Your task to perform on an android device: move a message to another label in the gmail app Image 0: 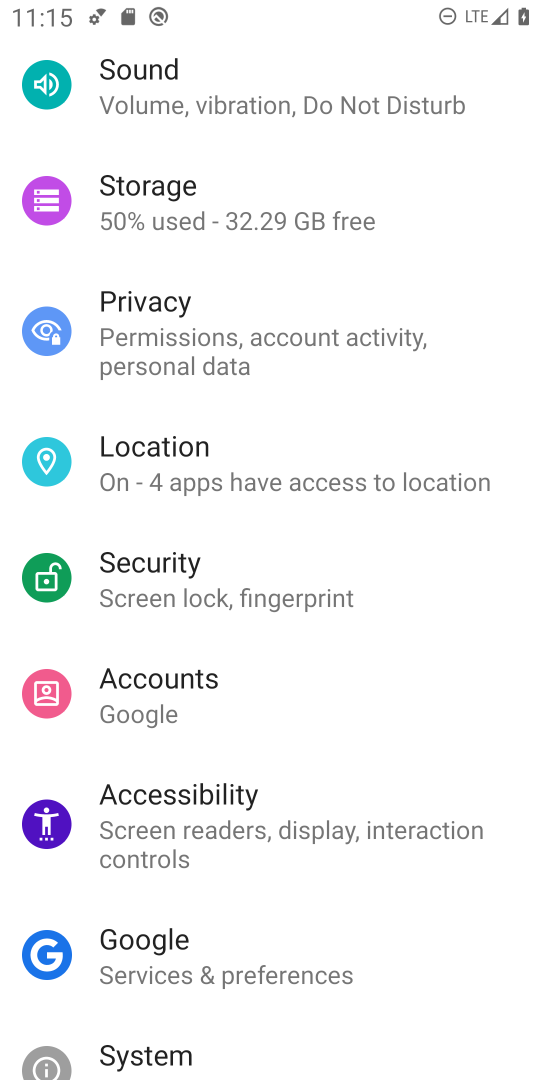
Step 0: press home button
Your task to perform on an android device: move a message to another label in the gmail app Image 1: 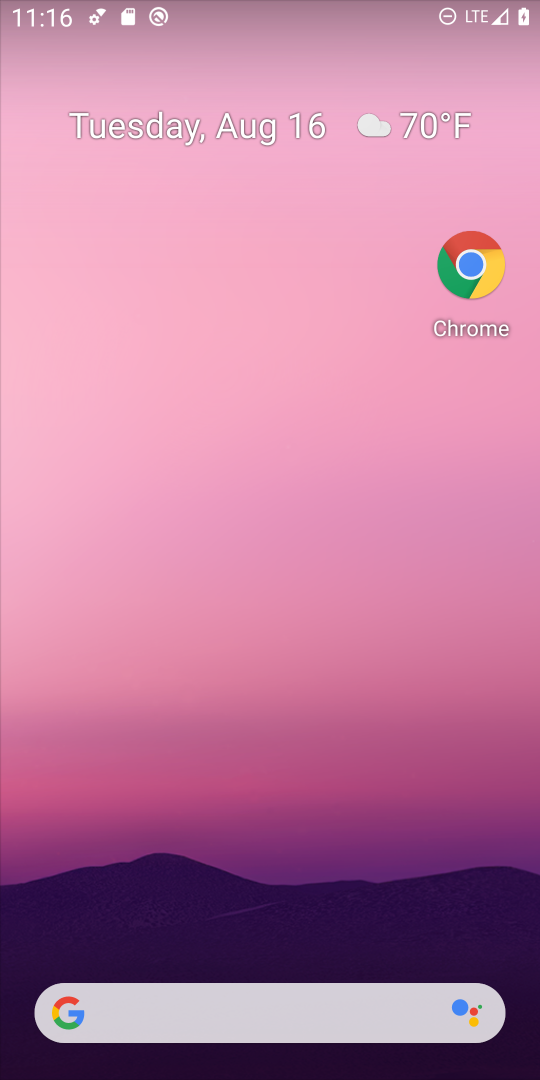
Step 1: drag from (354, 926) to (525, 284)
Your task to perform on an android device: move a message to another label in the gmail app Image 2: 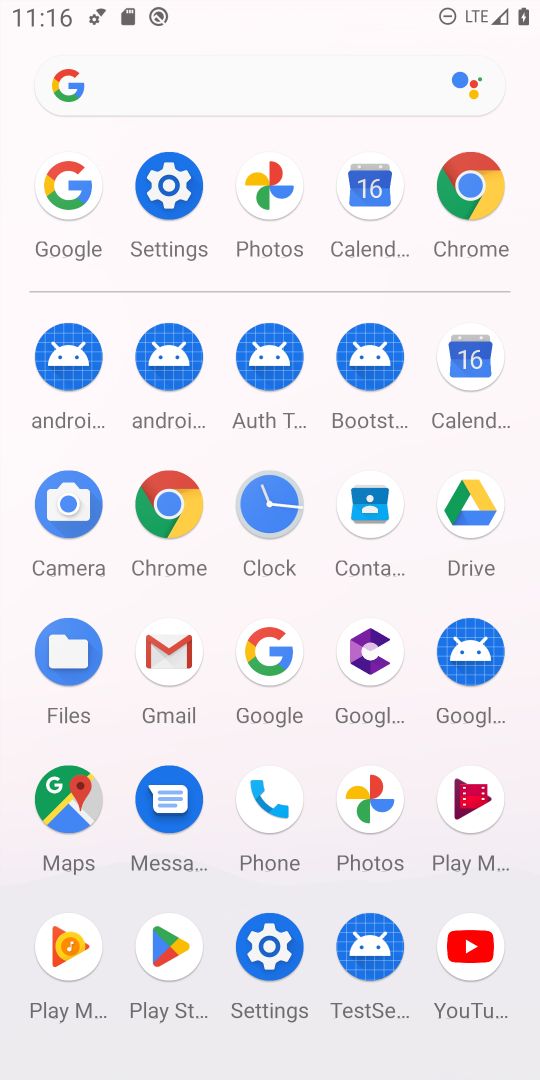
Step 2: click (171, 670)
Your task to perform on an android device: move a message to another label in the gmail app Image 3: 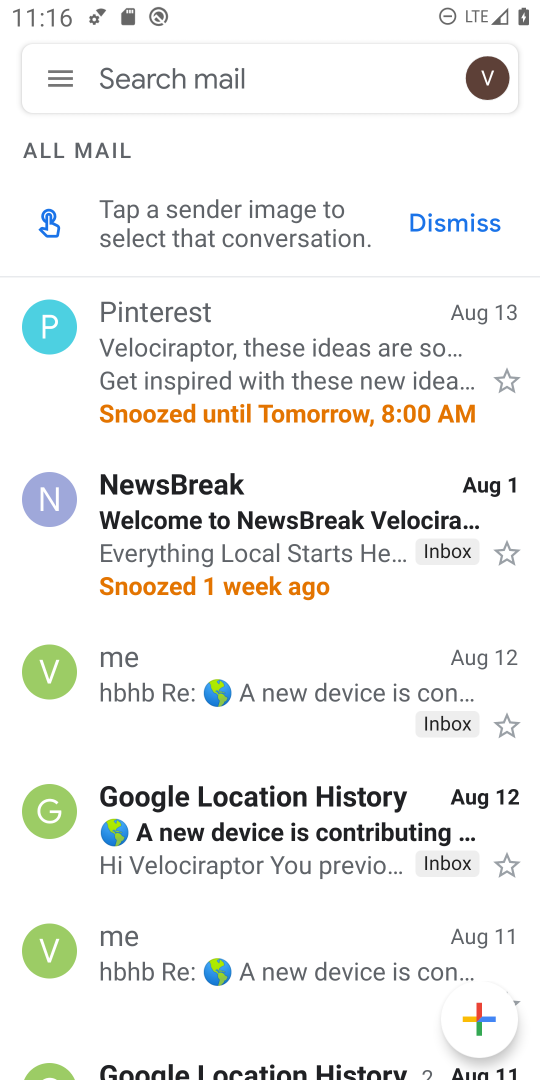
Step 3: click (246, 538)
Your task to perform on an android device: move a message to another label in the gmail app Image 4: 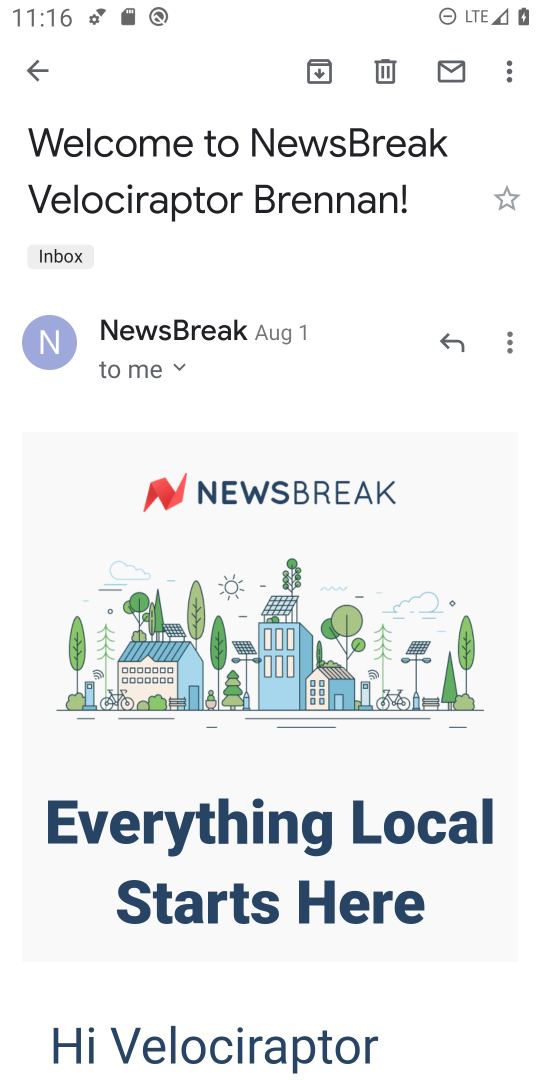
Step 4: click (514, 80)
Your task to perform on an android device: move a message to another label in the gmail app Image 5: 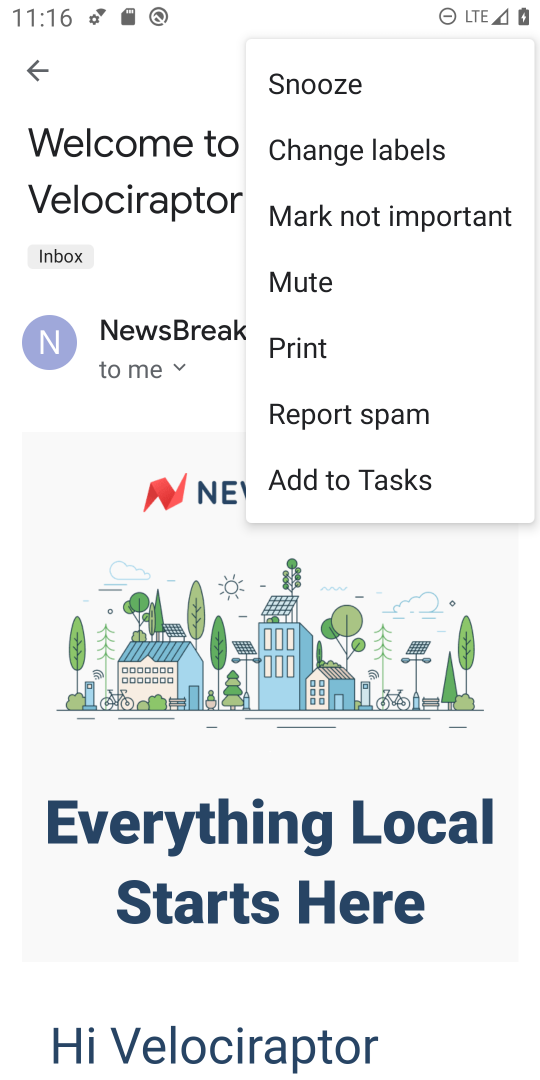
Step 5: click (386, 161)
Your task to perform on an android device: move a message to another label in the gmail app Image 6: 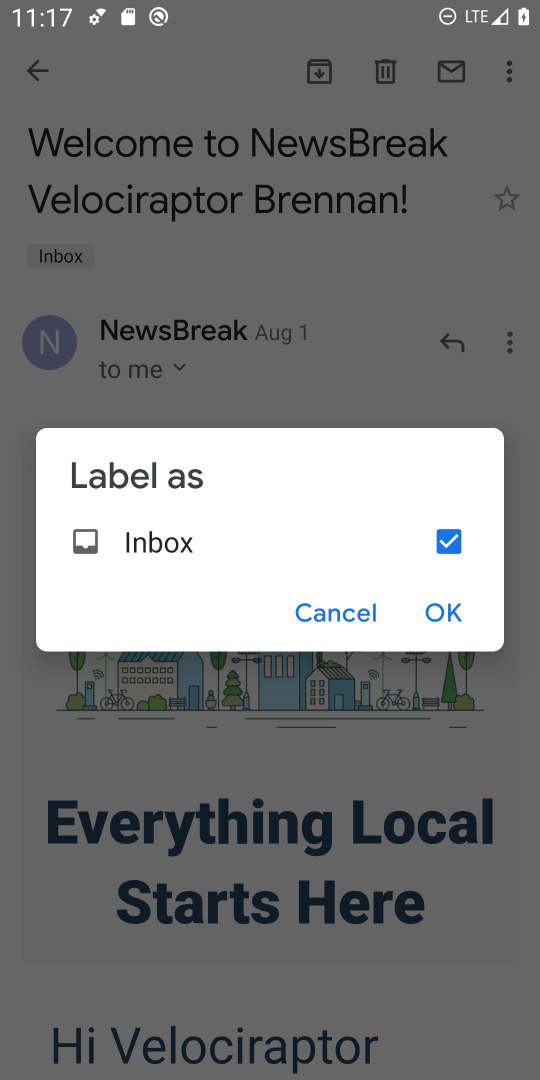
Step 6: click (439, 607)
Your task to perform on an android device: move a message to another label in the gmail app Image 7: 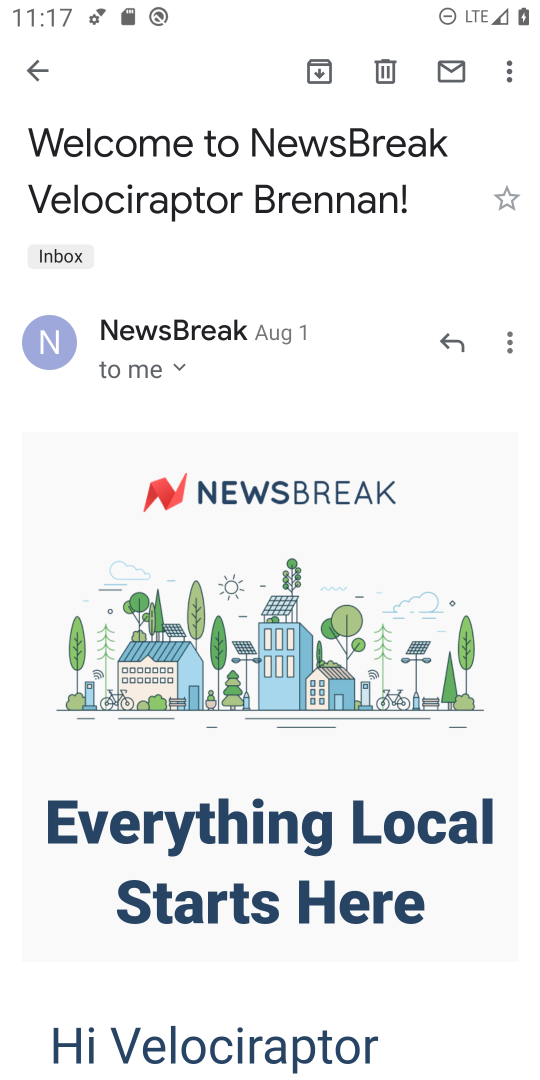
Step 7: click (455, 613)
Your task to perform on an android device: move a message to another label in the gmail app Image 8: 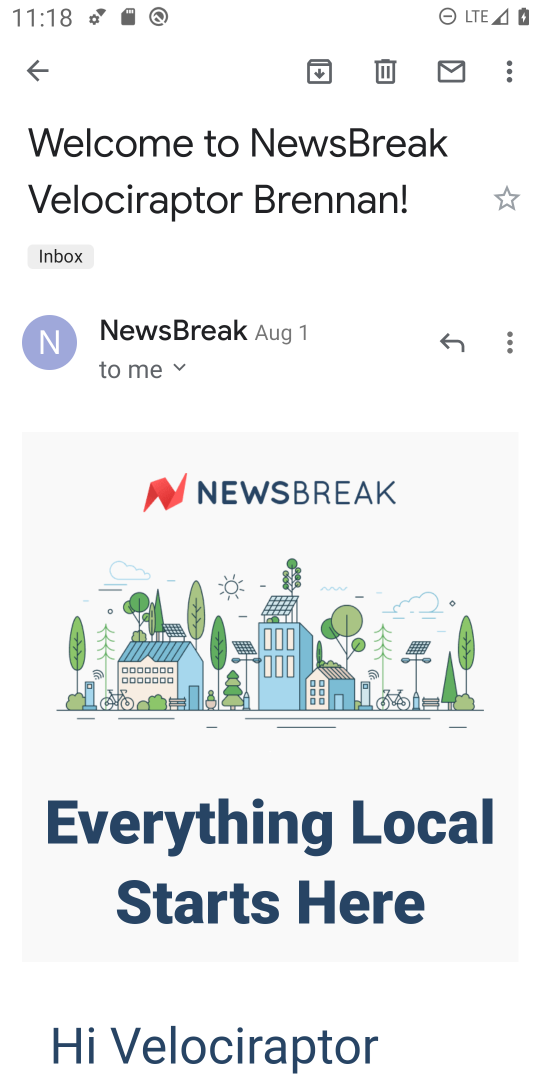
Step 8: task complete